Your task to perform on an android device: star an email in the gmail app Image 0: 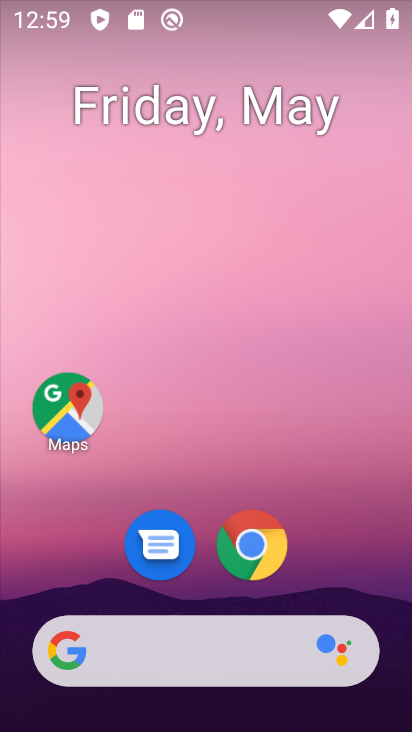
Step 0: drag from (395, 544) to (272, 73)
Your task to perform on an android device: star an email in the gmail app Image 1: 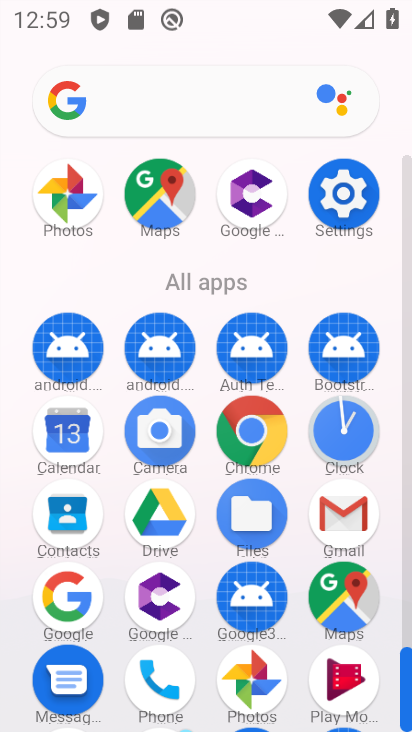
Step 1: click (360, 524)
Your task to perform on an android device: star an email in the gmail app Image 2: 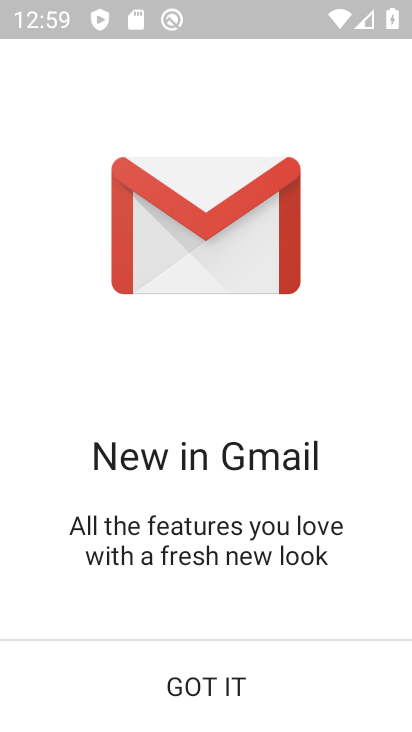
Step 2: click (264, 685)
Your task to perform on an android device: star an email in the gmail app Image 3: 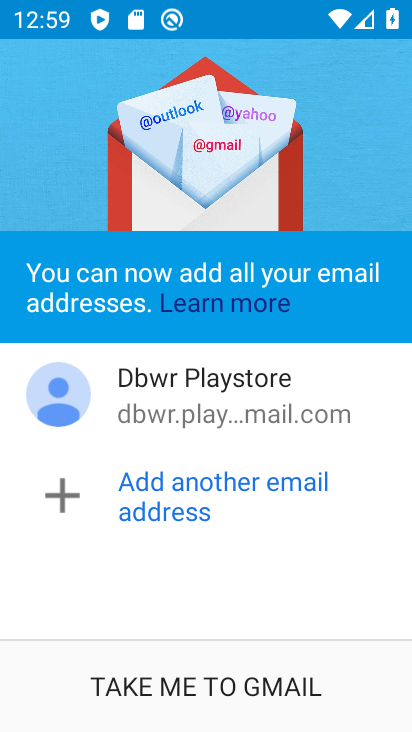
Step 3: click (313, 683)
Your task to perform on an android device: star an email in the gmail app Image 4: 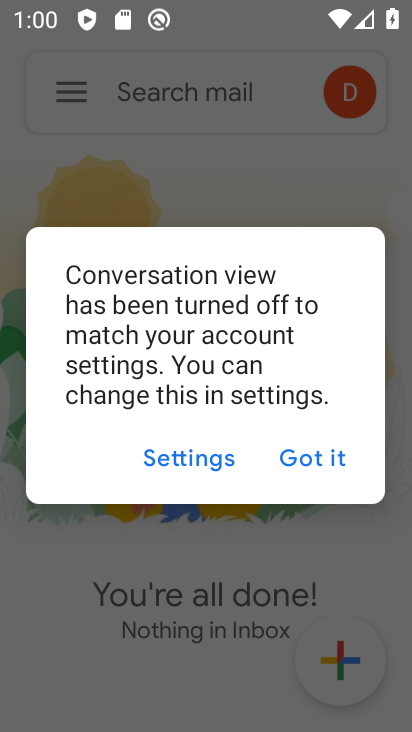
Step 4: click (319, 469)
Your task to perform on an android device: star an email in the gmail app Image 5: 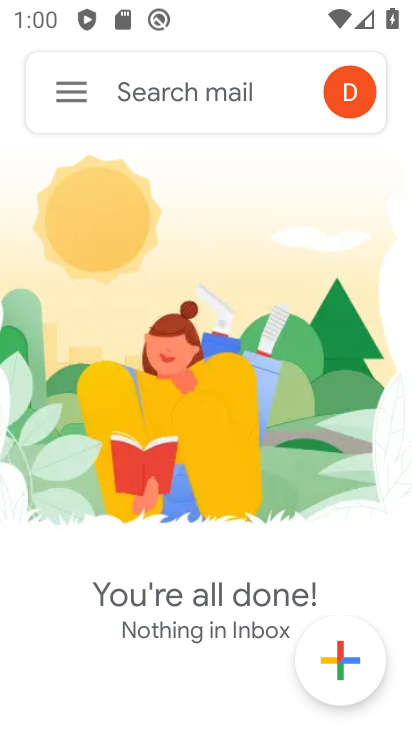
Step 5: click (75, 89)
Your task to perform on an android device: star an email in the gmail app Image 6: 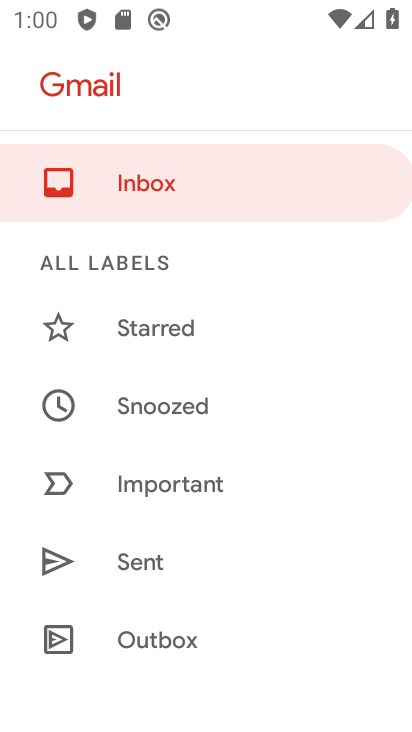
Step 6: drag from (323, 614) to (264, 436)
Your task to perform on an android device: star an email in the gmail app Image 7: 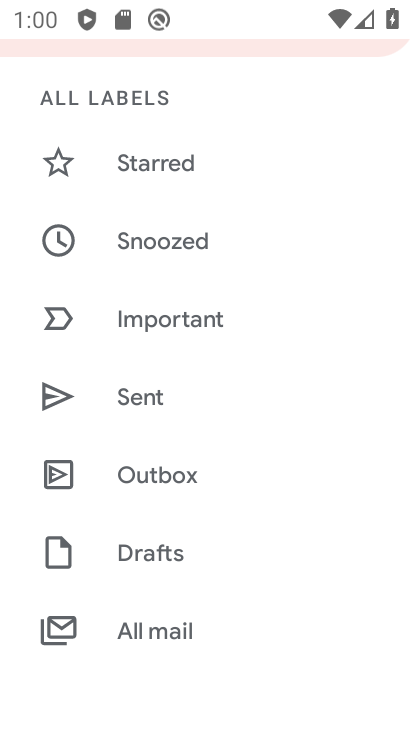
Step 7: click (221, 624)
Your task to perform on an android device: star an email in the gmail app Image 8: 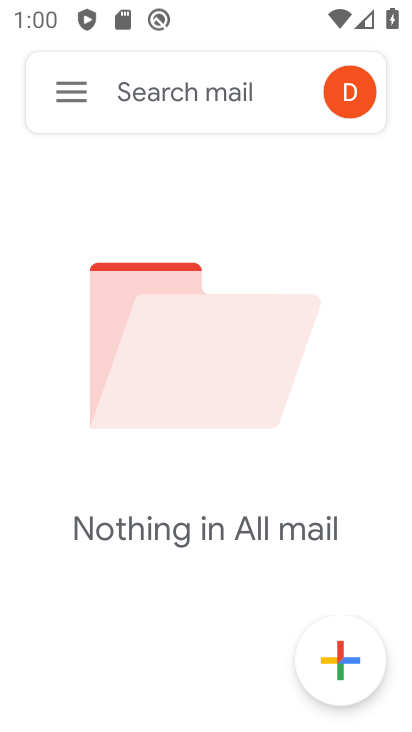
Step 8: click (319, 489)
Your task to perform on an android device: star an email in the gmail app Image 9: 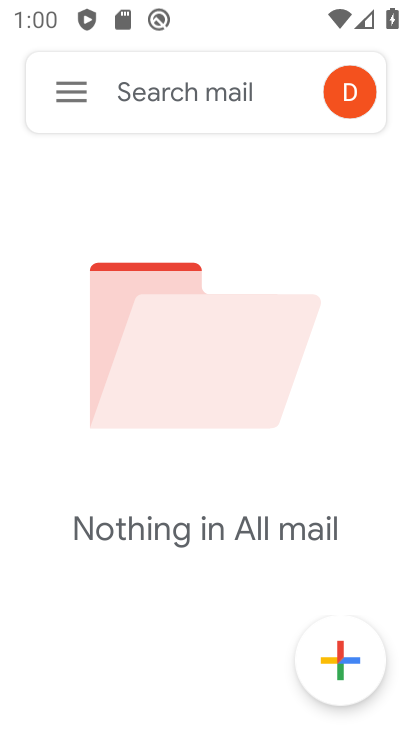
Step 9: click (340, 456)
Your task to perform on an android device: star an email in the gmail app Image 10: 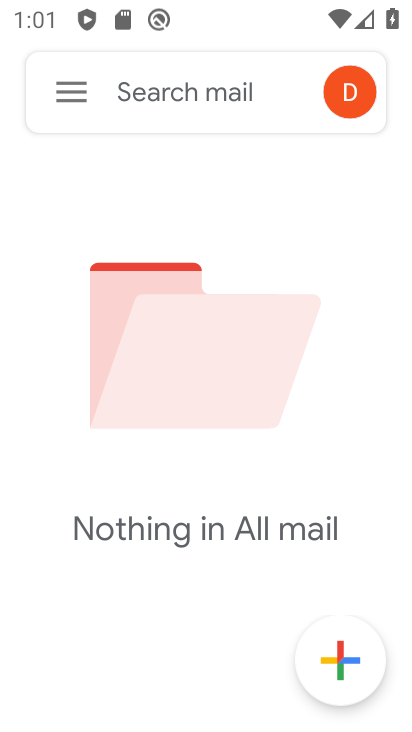
Step 10: task complete